Your task to perform on an android device: turn off wifi Image 0: 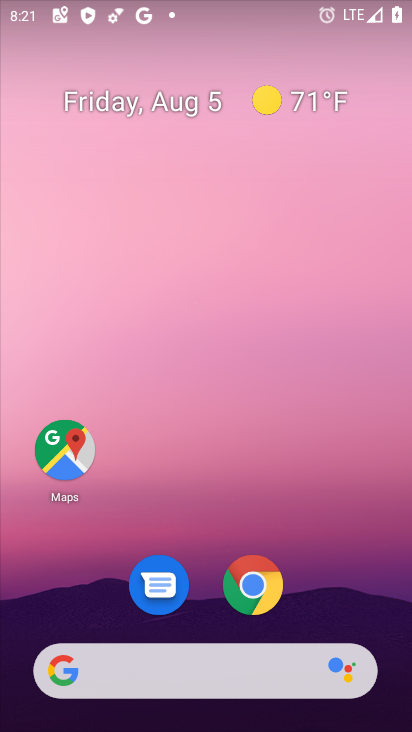
Step 0: drag from (275, 252) to (285, 11)
Your task to perform on an android device: turn off wifi Image 1: 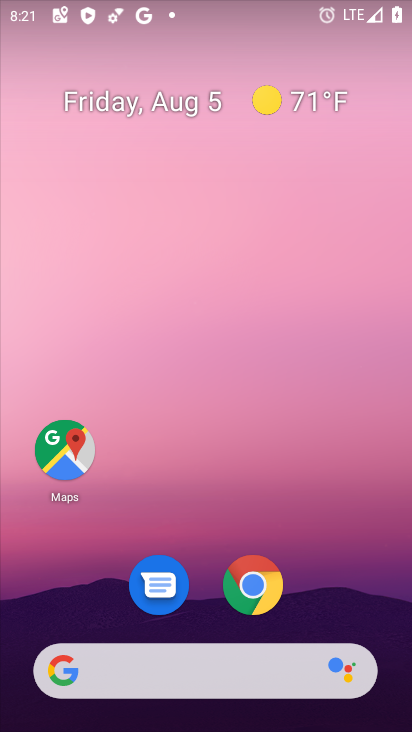
Step 1: drag from (209, 521) to (240, 0)
Your task to perform on an android device: turn off wifi Image 2: 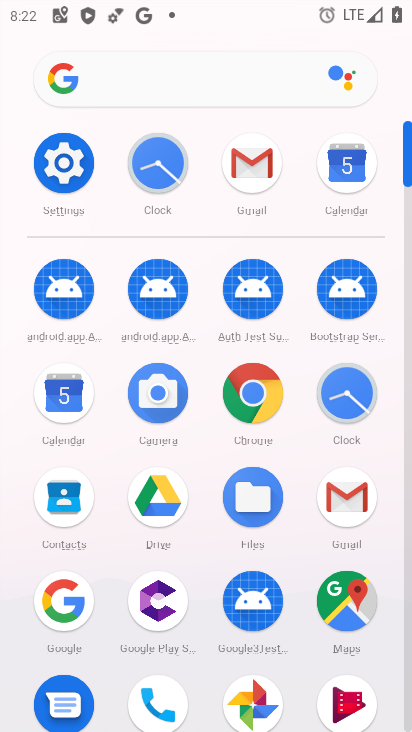
Step 2: click (68, 166)
Your task to perform on an android device: turn off wifi Image 3: 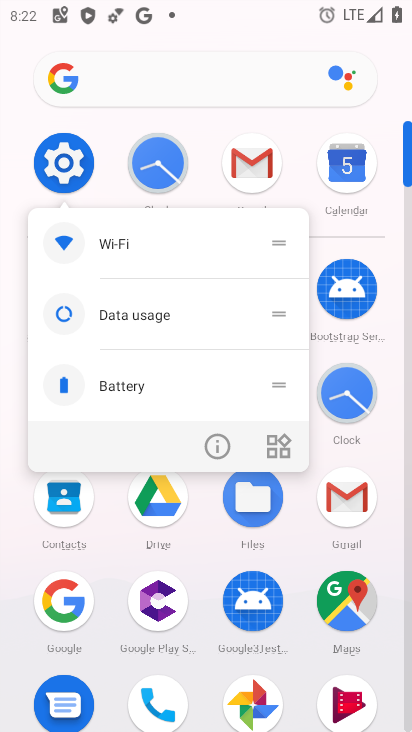
Step 3: click (68, 166)
Your task to perform on an android device: turn off wifi Image 4: 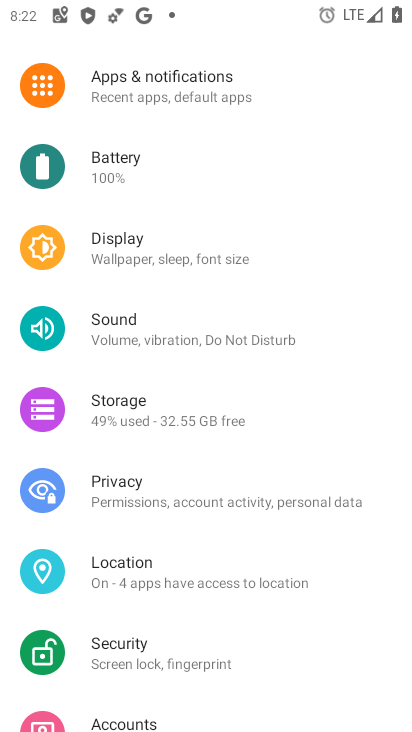
Step 4: drag from (199, 151) to (219, 457)
Your task to perform on an android device: turn off wifi Image 5: 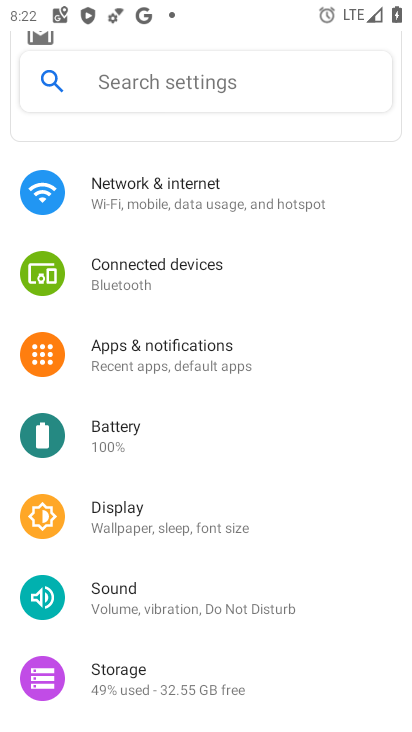
Step 5: click (221, 194)
Your task to perform on an android device: turn off wifi Image 6: 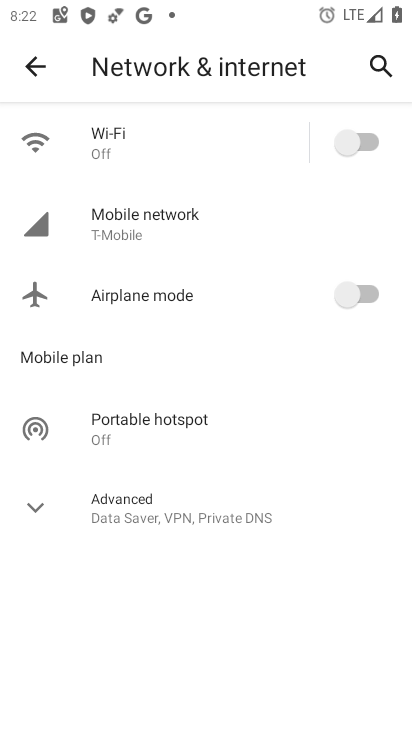
Step 6: click (236, 141)
Your task to perform on an android device: turn off wifi Image 7: 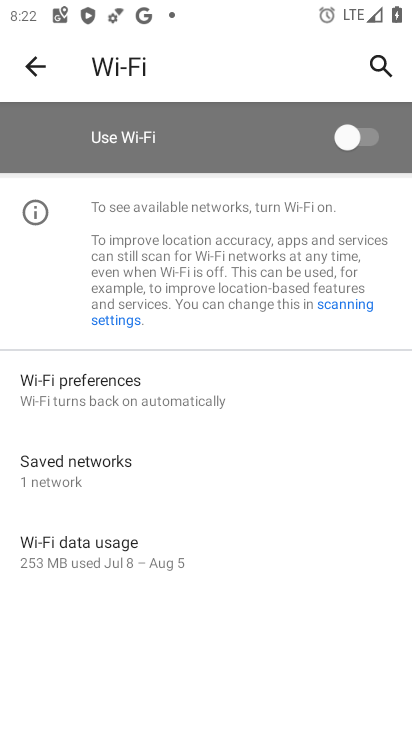
Step 7: task complete